Your task to perform on an android device: When is my next meeting? Image 0: 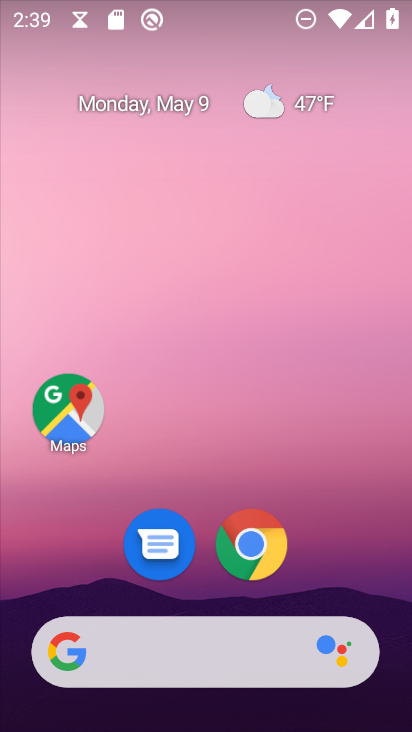
Step 0: drag from (396, 499) to (333, 135)
Your task to perform on an android device: When is my next meeting? Image 1: 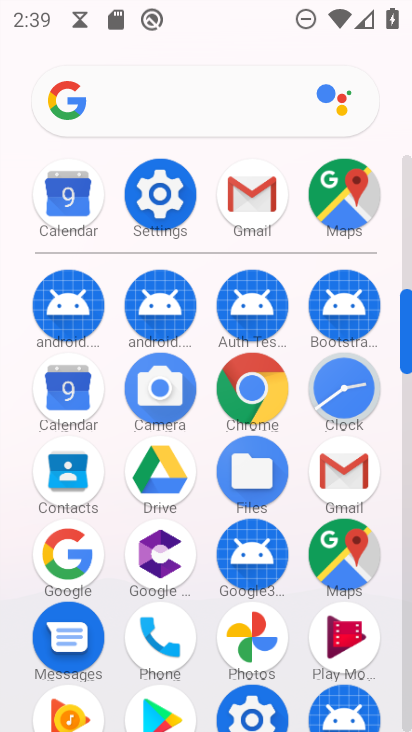
Step 1: click (74, 398)
Your task to perform on an android device: When is my next meeting? Image 2: 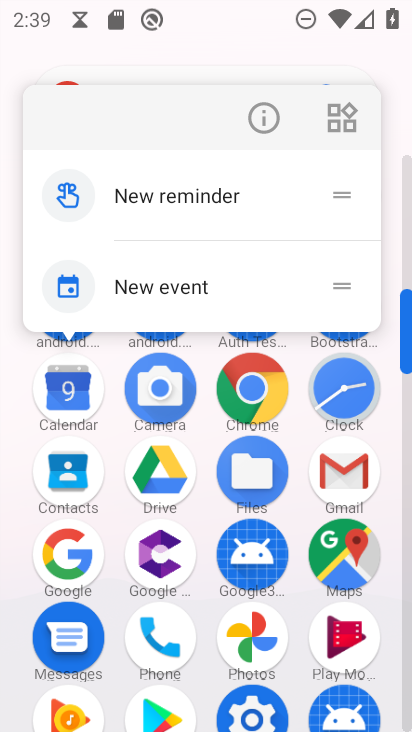
Step 2: click (61, 410)
Your task to perform on an android device: When is my next meeting? Image 3: 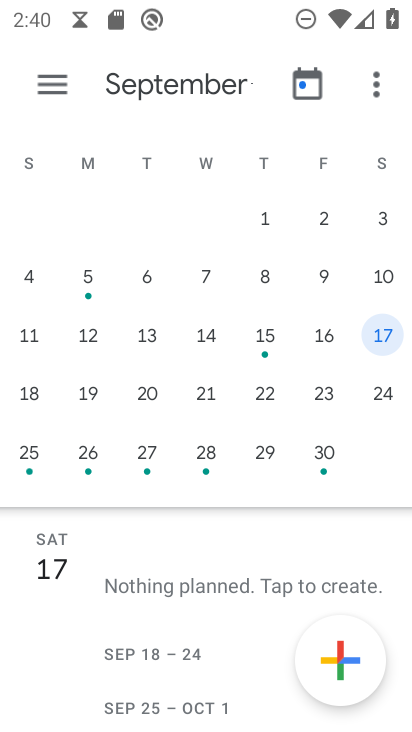
Step 3: click (26, 450)
Your task to perform on an android device: When is my next meeting? Image 4: 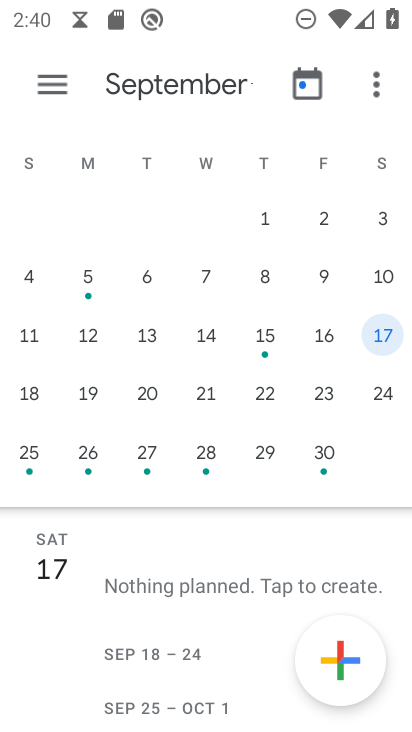
Step 4: click (30, 463)
Your task to perform on an android device: When is my next meeting? Image 5: 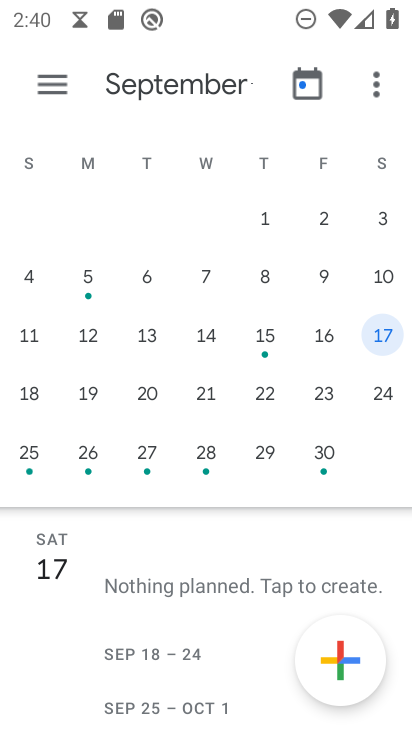
Step 5: click (32, 454)
Your task to perform on an android device: When is my next meeting? Image 6: 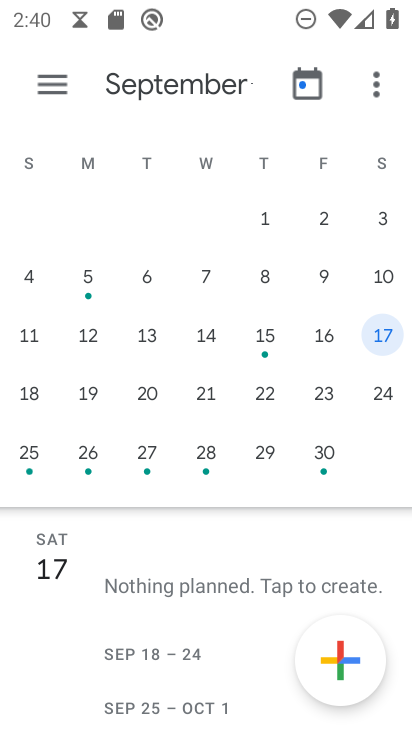
Step 6: task complete